Your task to perform on an android device: Open Google Image 0: 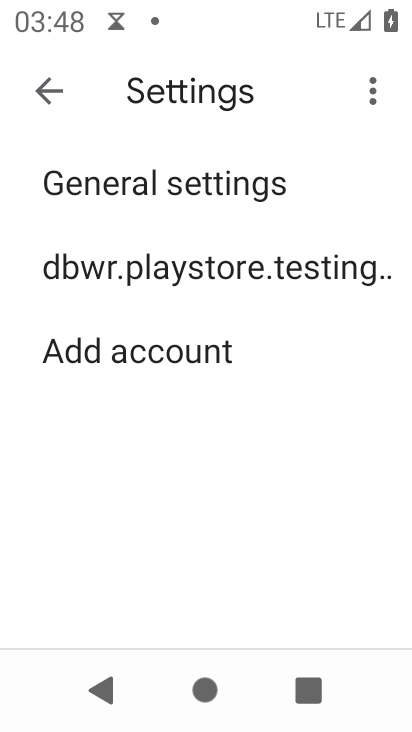
Step 0: press home button
Your task to perform on an android device: Open Google Image 1: 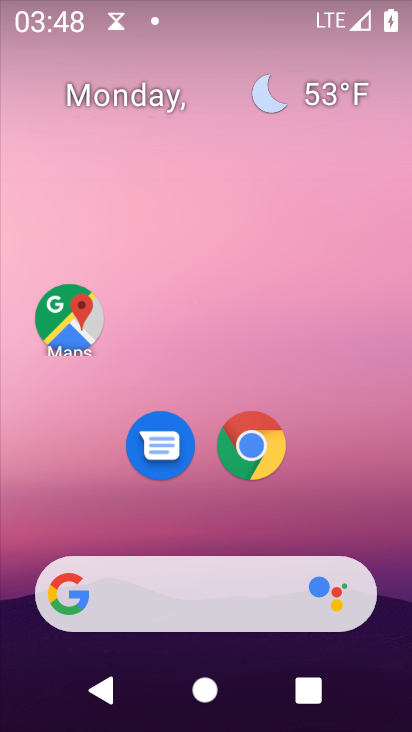
Step 1: click (187, 586)
Your task to perform on an android device: Open Google Image 2: 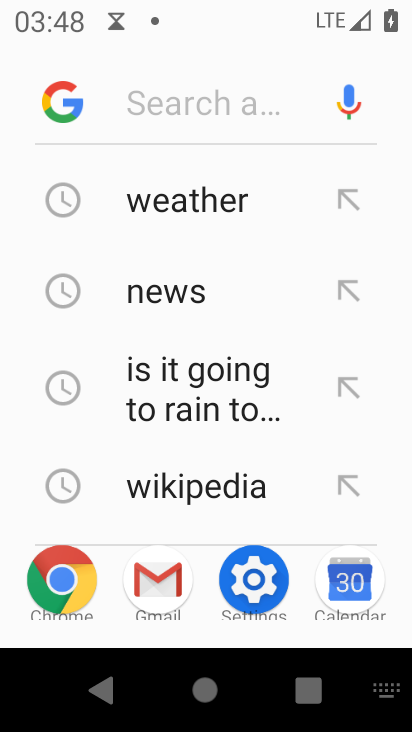
Step 2: click (72, 112)
Your task to perform on an android device: Open Google Image 3: 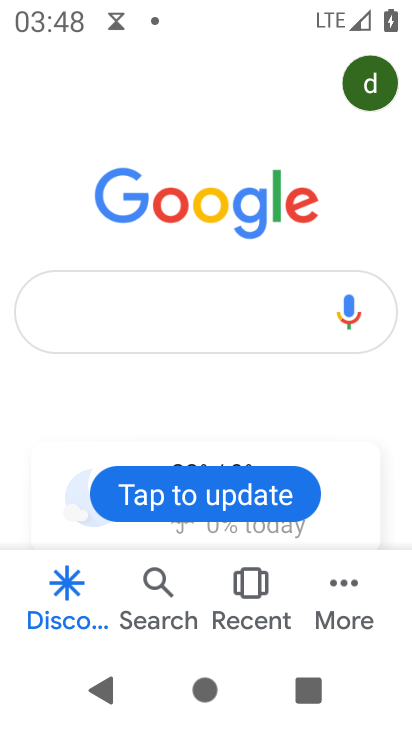
Step 3: task complete